Your task to perform on an android device: toggle improve location accuracy Image 0: 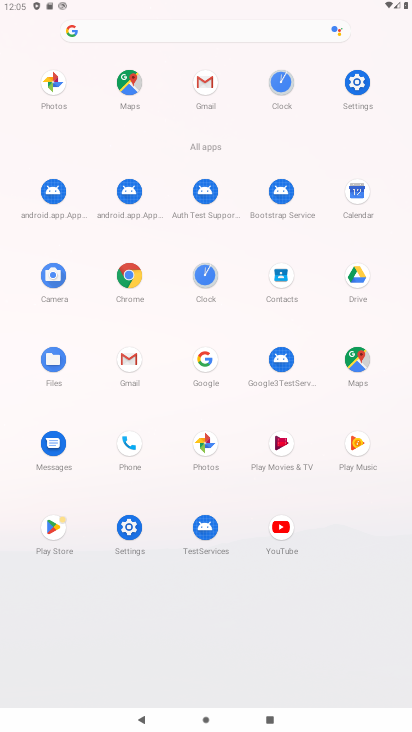
Step 0: click (347, 84)
Your task to perform on an android device: toggle improve location accuracy Image 1: 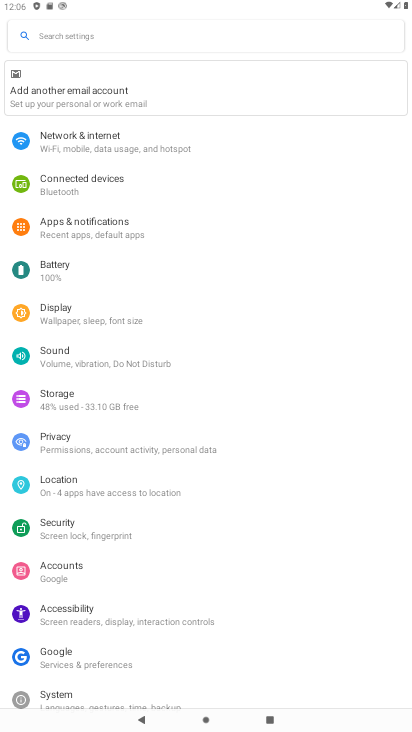
Step 1: click (63, 487)
Your task to perform on an android device: toggle improve location accuracy Image 2: 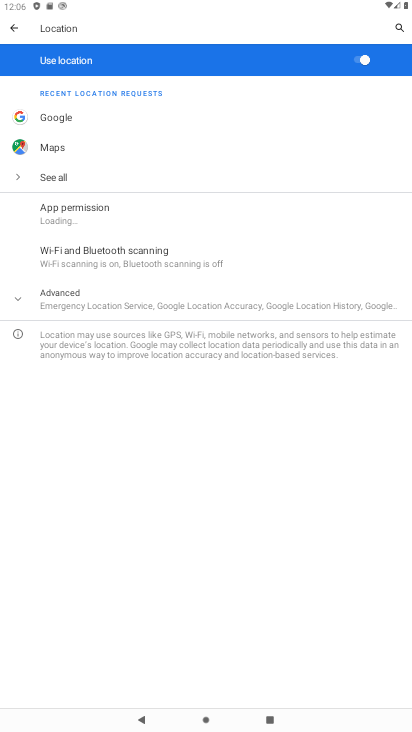
Step 2: click (24, 294)
Your task to perform on an android device: toggle improve location accuracy Image 3: 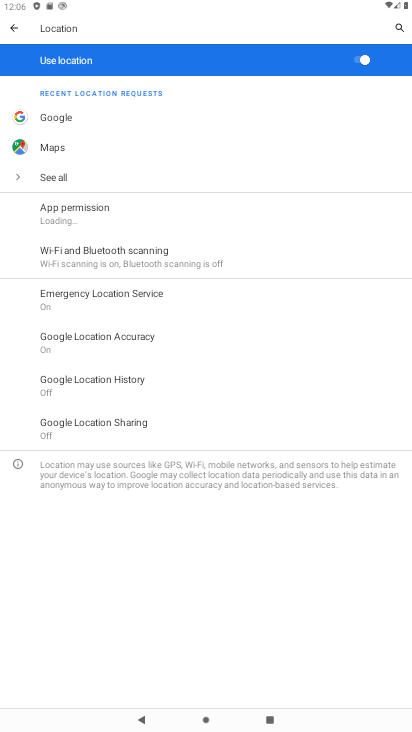
Step 3: click (96, 337)
Your task to perform on an android device: toggle improve location accuracy Image 4: 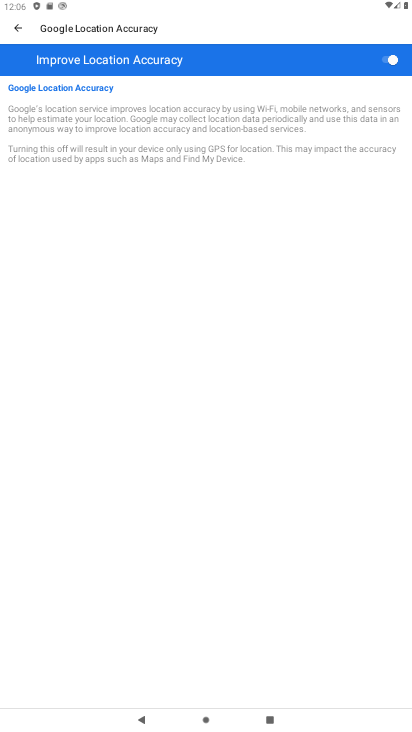
Step 4: click (384, 59)
Your task to perform on an android device: toggle improve location accuracy Image 5: 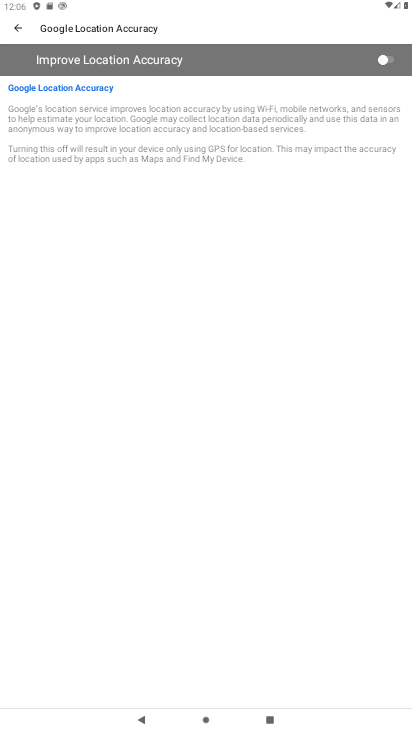
Step 5: task complete